Your task to perform on an android device: turn notification dots on Image 0: 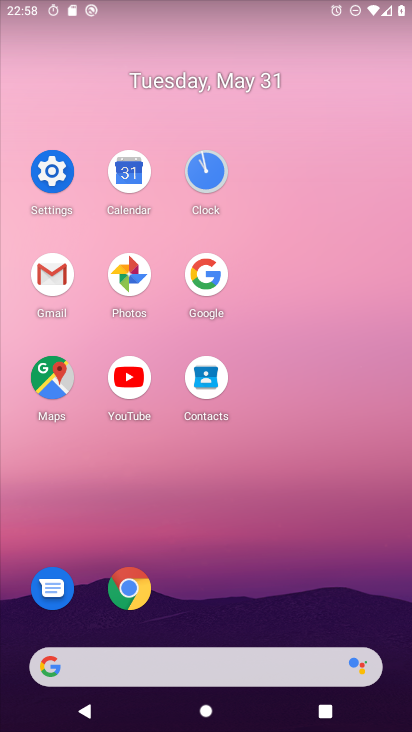
Step 0: click (65, 189)
Your task to perform on an android device: turn notification dots on Image 1: 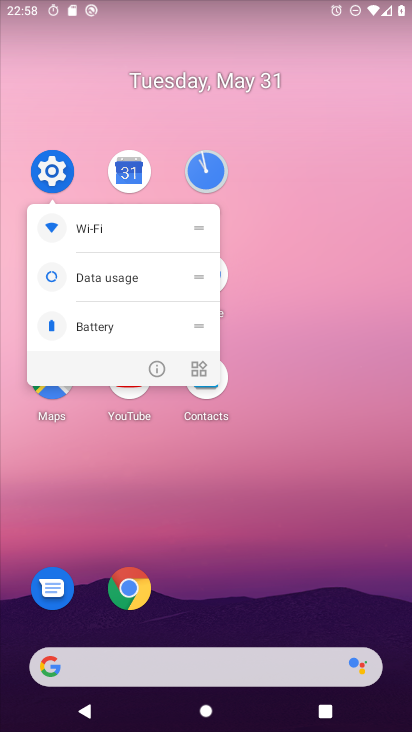
Step 1: click (67, 189)
Your task to perform on an android device: turn notification dots on Image 2: 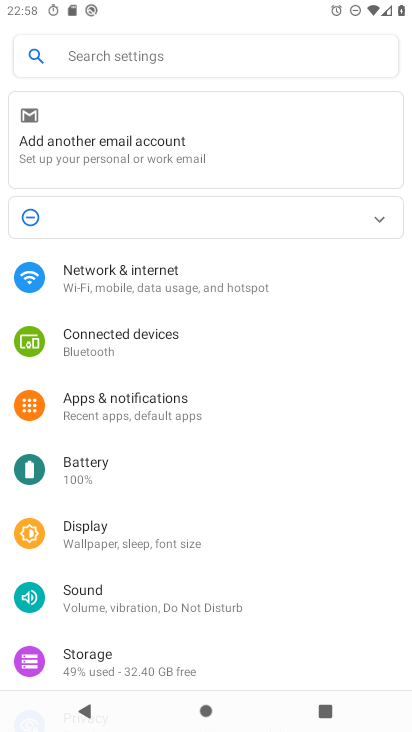
Step 2: click (190, 407)
Your task to perform on an android device: turn notification dots on Image 3: 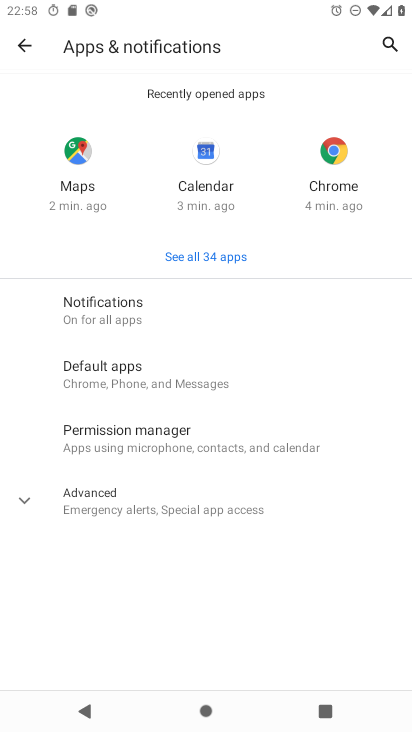
Step 3: click (175, 297)
Your task to perform on an android device: turn notification dots on Image 4: 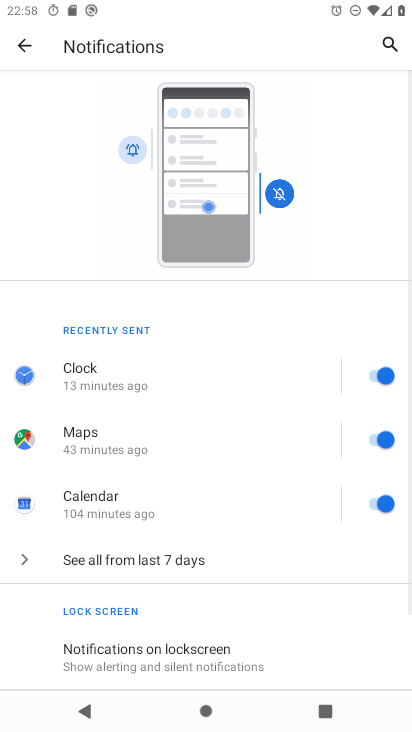
Step 4: drag from (196, 636) to (198, 194)
Your task to perform on an android device: turn notification dots on Image 5: 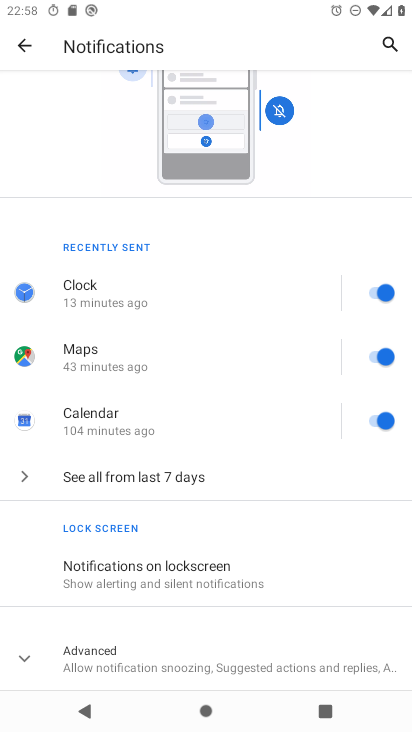
Step 5: click (152, 652)
Your task to perform on an android device: turn notification dots on Image 6: 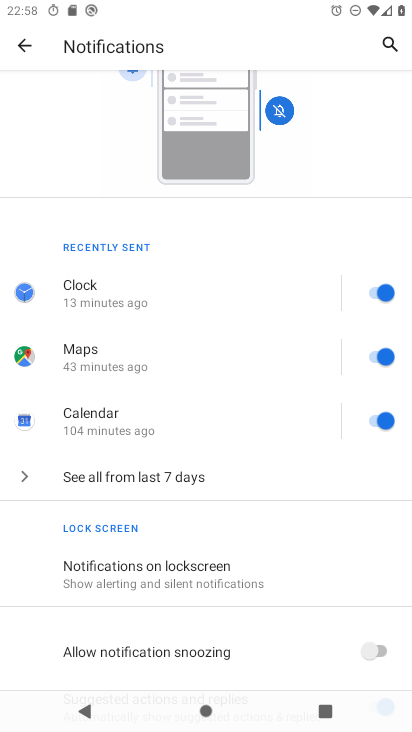
Step 6: task complete